Your task to perform on an android device: Open Chrome and go to the settings page Image 0: 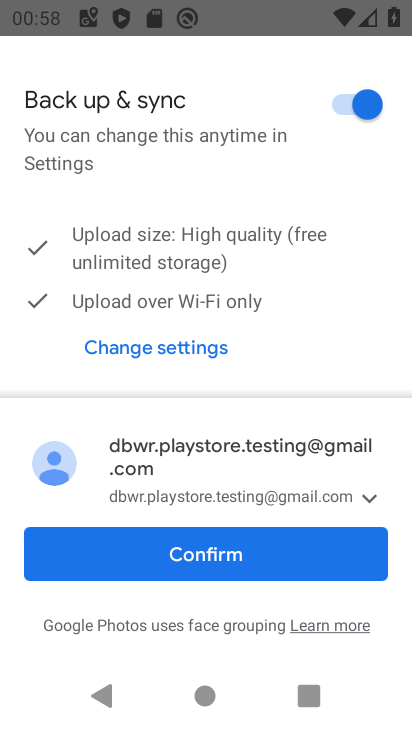
Step 0: press home button
Your task to perform on an android device: Open Chrome and go to the settings page Image 1: 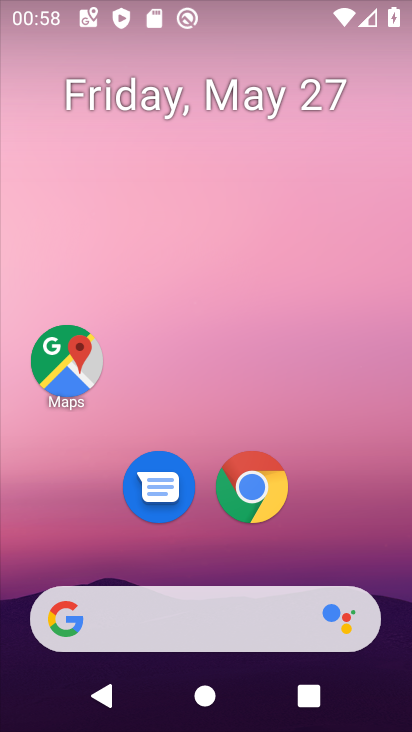
Step 1: click (226, 500)
Your task to perform on an android device: Open Chrome and go to the settings page Image 2: 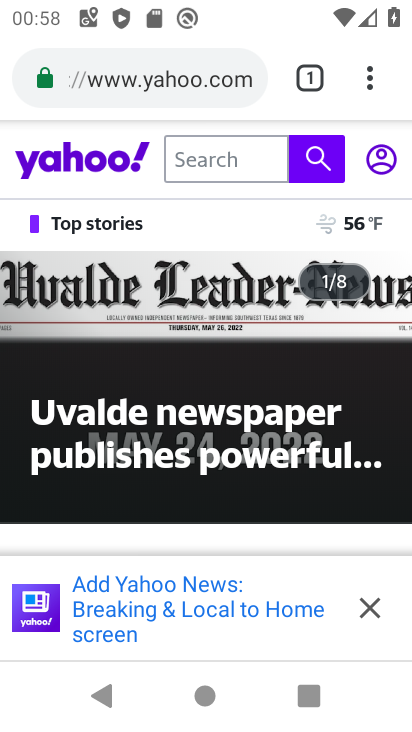
Step 2: click (371, 87)
Your task to perform on an android device: Open Chrome and go to the settings page Image 3: 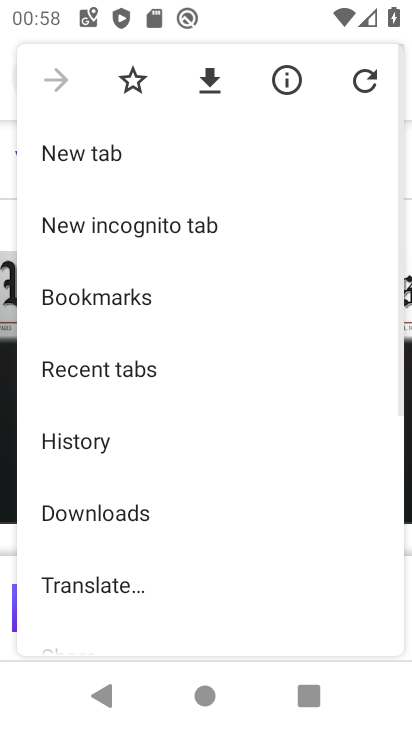
Step 3: drag from (126, 550) to (178, 169)
Your task to perform on an android device: Open Chrome and go to the settings page Image 4: 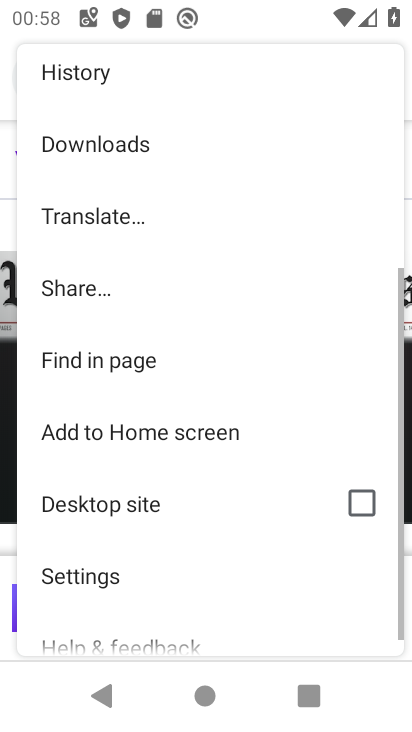
Step 4: click (110, 574)
Your task to perform on an android device: Open Chrome and go to the settings page Image 5: 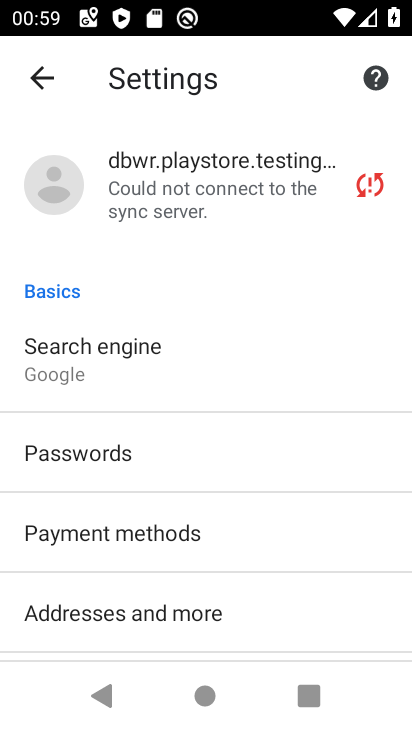
Step 5: task complete